Your task to perform on an android device: What's the weather? Image 0: 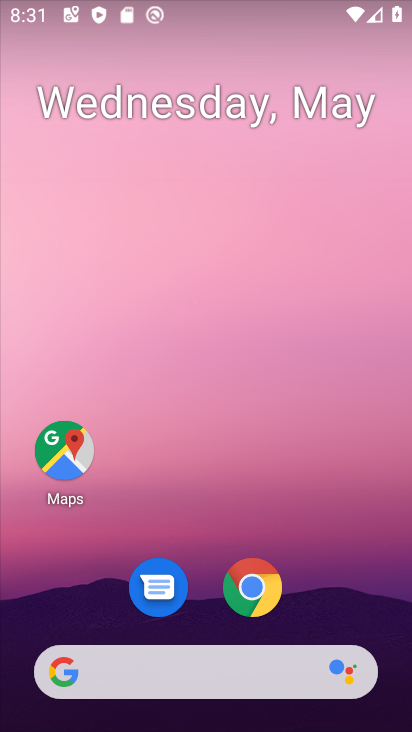
Step 0: drag from (8, 243) to (409, 208)
Your task to perform on an android device: What's the weather? Image 1: 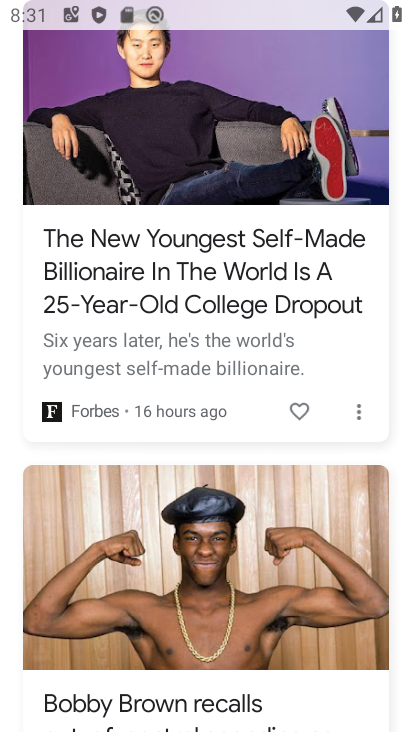
Step 1: drag from (153, 112) to (183, 629)
Your task to perform on an android device: What's the weather? Image 2: 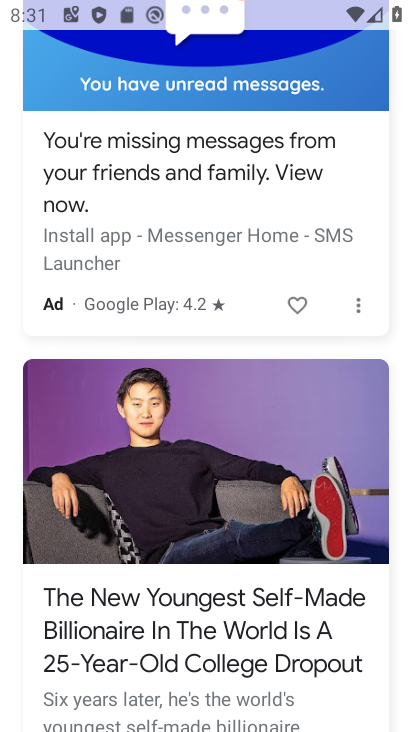
Step 2: drag from (213, 291) to (206, 657)
Your task to perform on an android device: What's the weather? Image 3: 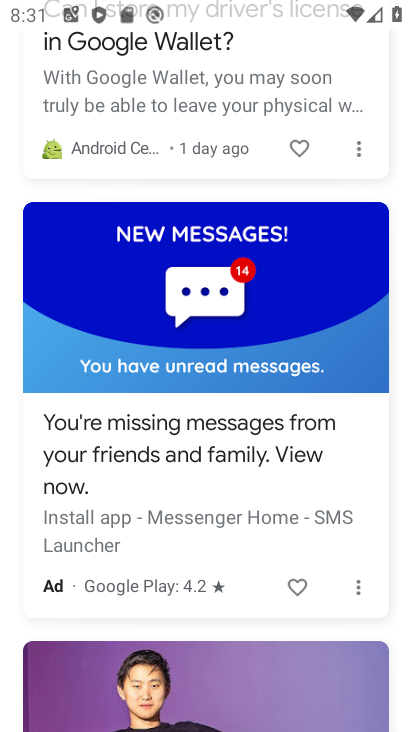
Step 3: drag from (212, 262) to (197, 648)
Your task to perform on an android device: What's the weather? Image 4: 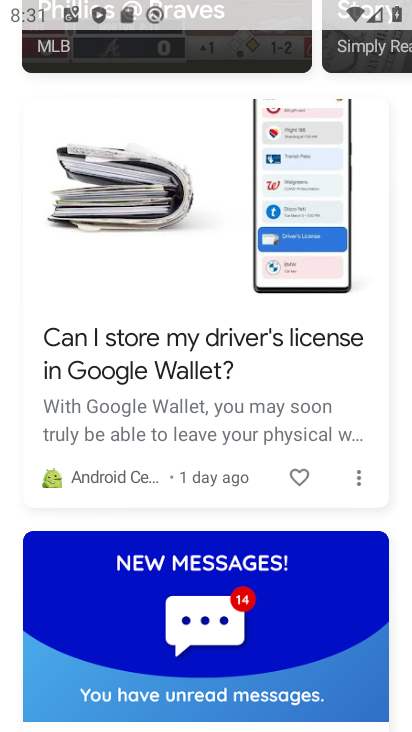
Step 4: drag from (220, 263) to (196, 651)
Your task to perform on an android device: What's the weather? Image 5: 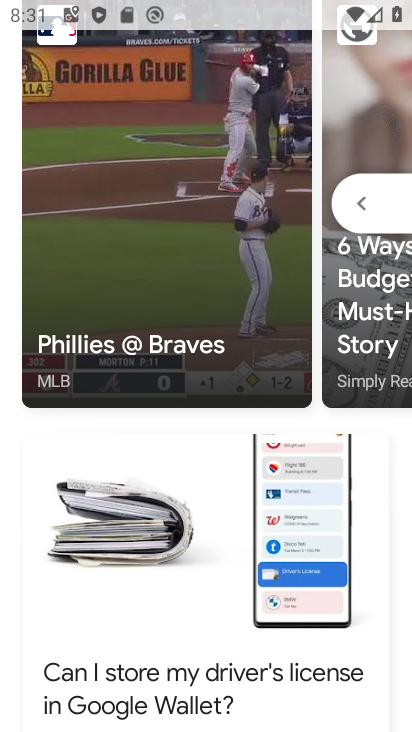
Step 5: drag from (221, 107) to (223, 616)
Your task to perform on an android device: What's the weather? Image 6: 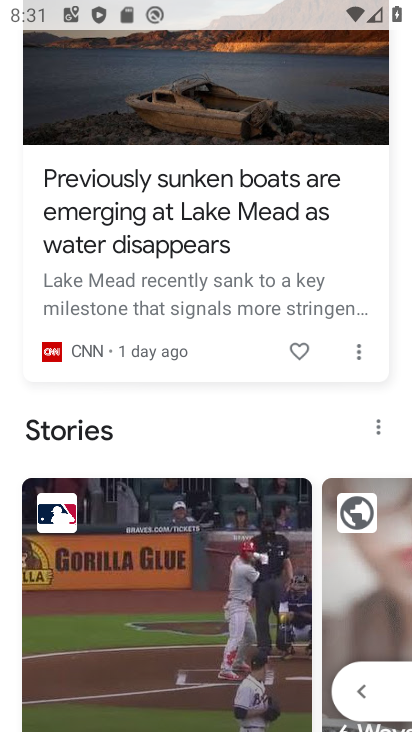
Step 6: drag from (210, 114) to (202, 564)
Your task to perform on an android device: What's the weather? Image 7: 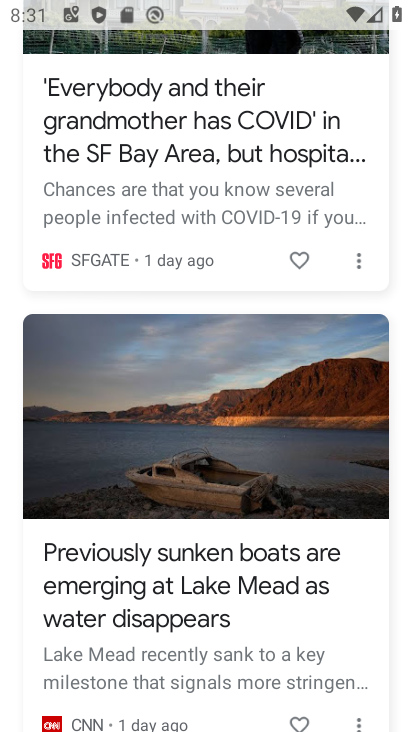
Step 7: drag from (206, 10) to (206, 503)
Your task to perform on an android device: What's the weather? Image 8: 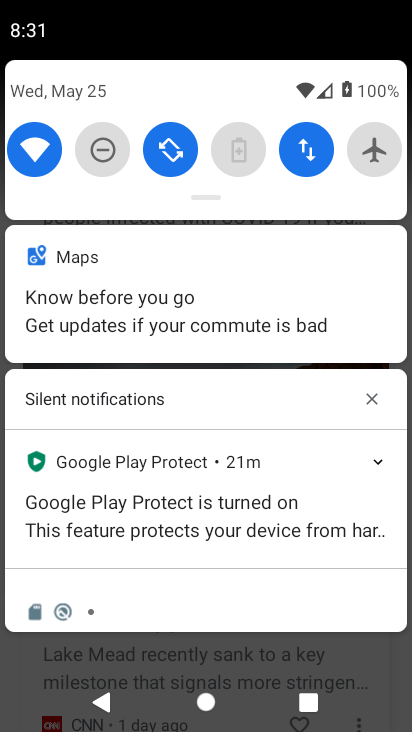
Step 8: drag from (238, 655) to (194, 212)
Your task to perform on an android device: What's the weather? Image 9: 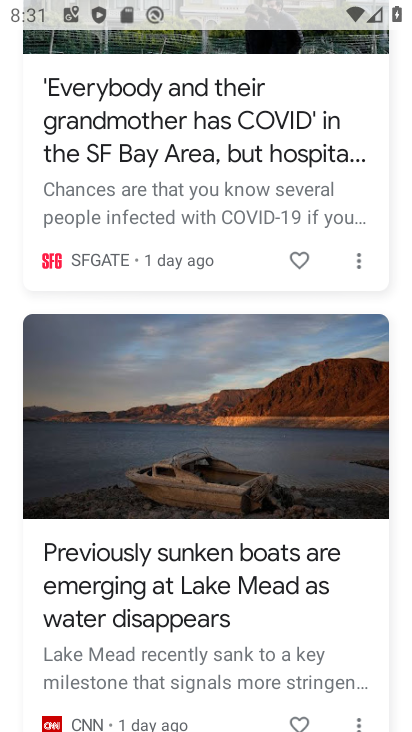
Step 9: drag from (194, 212) to (204, 699)
Your task to perform on an android device: What's the weather? Image 10: 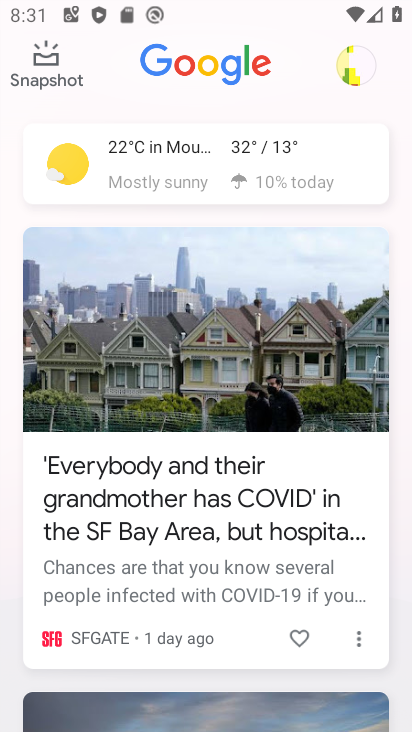
Step 10: click (276, 148)
Your task to perform on an android device: What's the weather? Image 11: 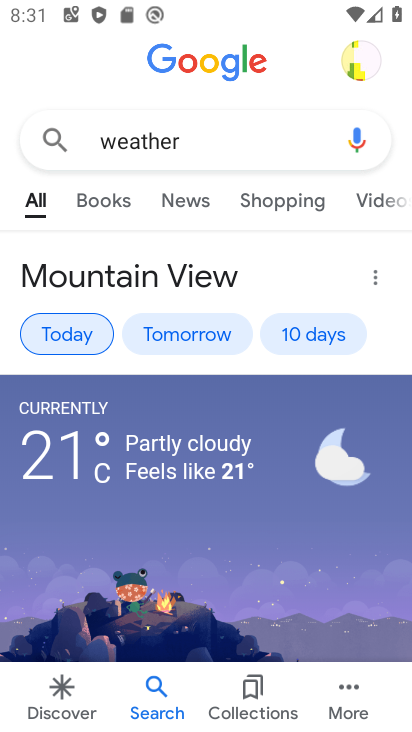
Step 11: task complete